Your task to perform on an android device: change your default location settings in chrome Image 0: 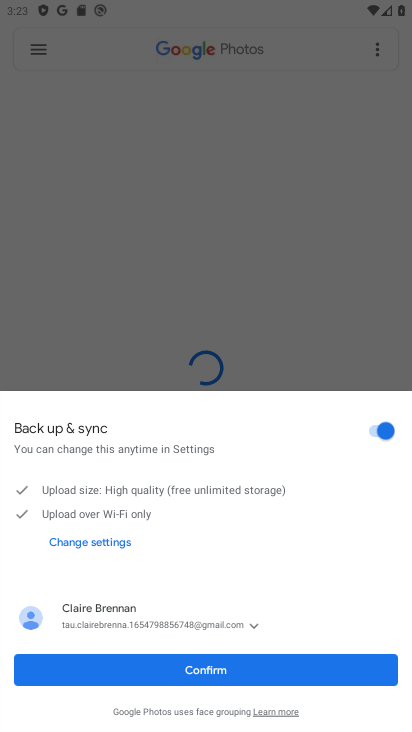
Step 0: press home button
Your task to perform on an android device: change your default location settings in chrome Image 1: 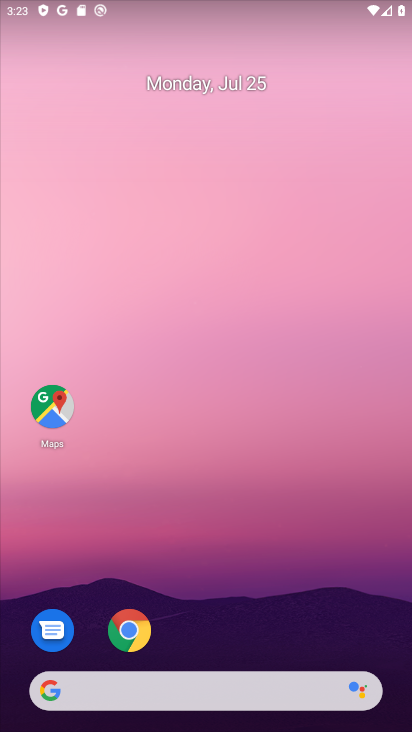
Step 1: click (129, 632)
Your task to perform on an android device: change your default location settings in chrome Image 2: 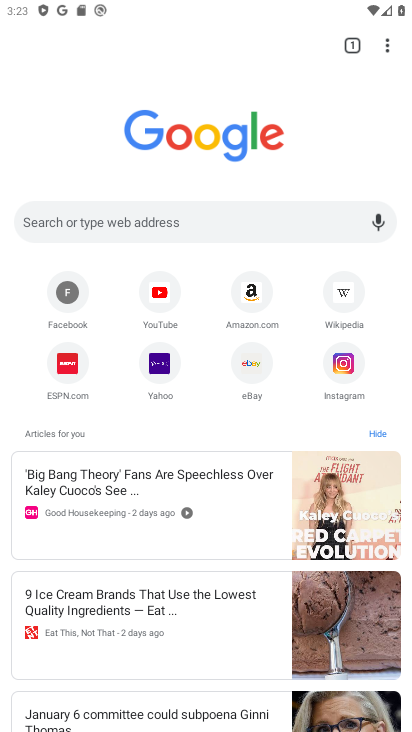
Step 2: click (387, 44)
Your task to perform on an android device: change your default location settings in chrome Image 3: 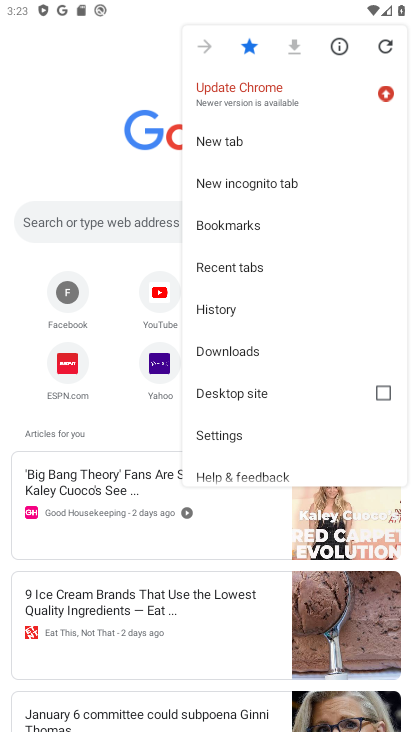
Step 3: click (230, 441)
Your task to perform on an android device: change your default location settings in chrome Image 4: 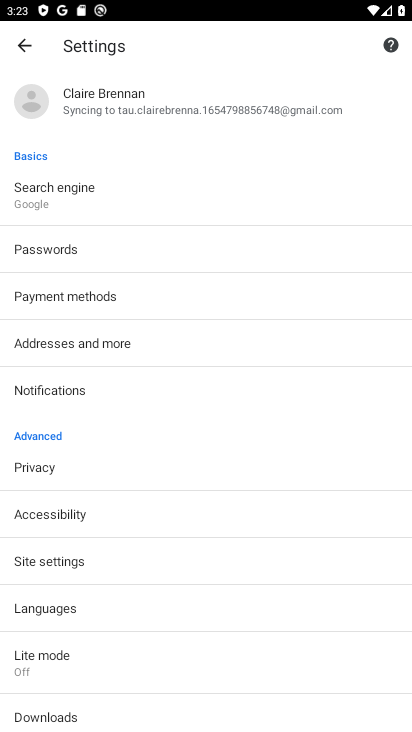
Step 4: click (54, 561)
Your task to perform on an android device: change your default location settings in chrome Image 5: 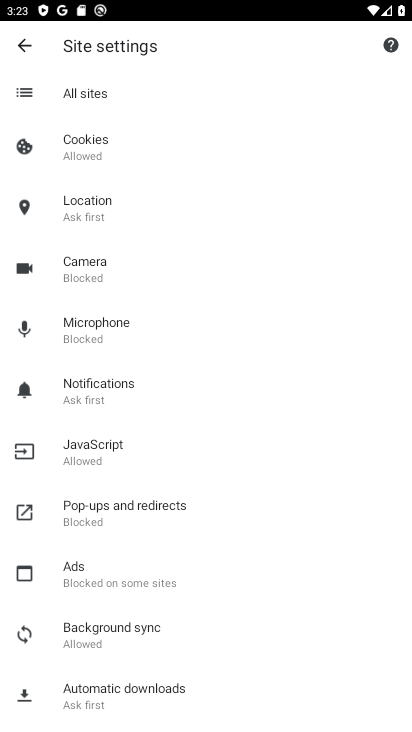
Step 5: click (99, 214)
Your task to perform on an android device: change your default location settings in chrome Image 6: 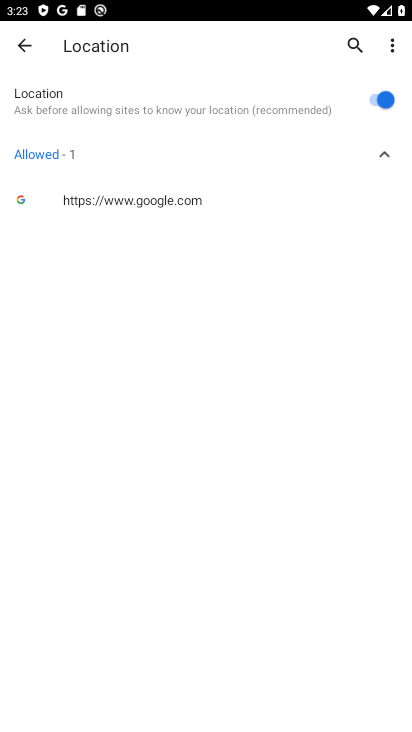
Step 6: click (374, 98)
Your task to perform on an android device: change your default location settings in chrome Image 7: 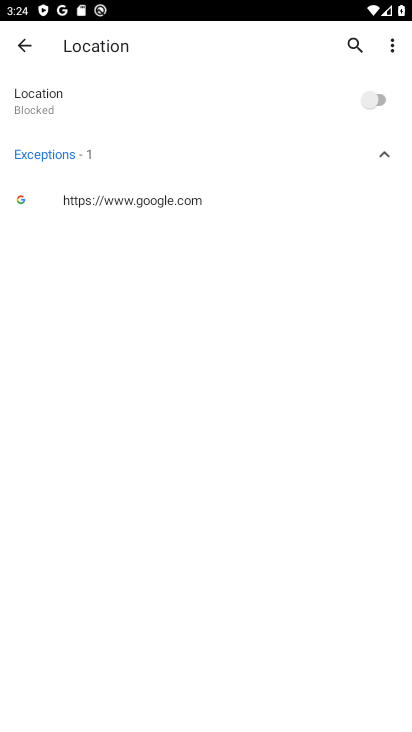
Step 7: task complete